Your task to perform on an android device: turn off location Image 0: 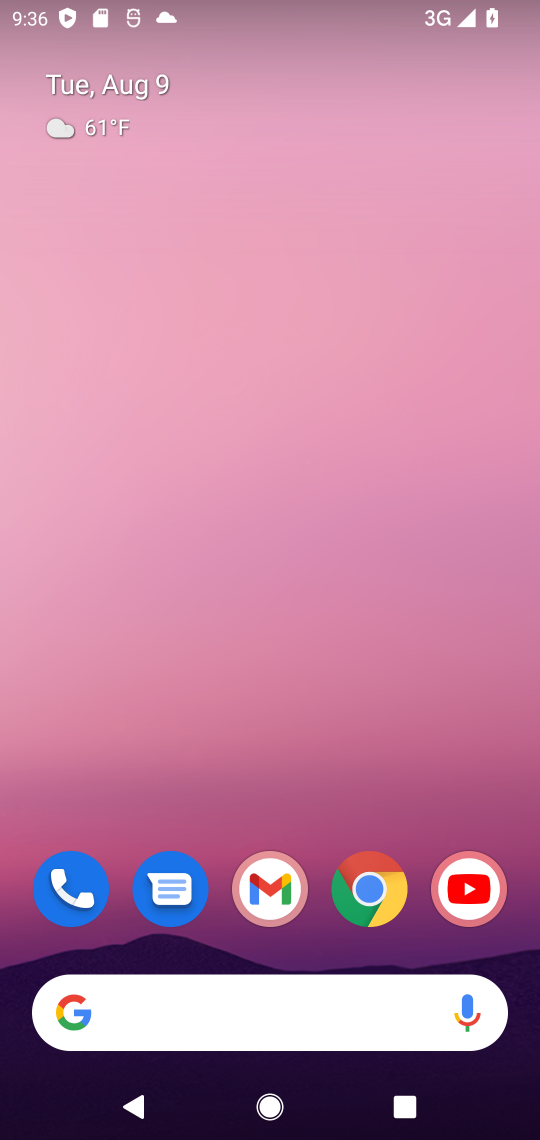
Step 0: drag from (320, 847) to (38, 225)
Your task to perform on an android device: turn off location Image 1: 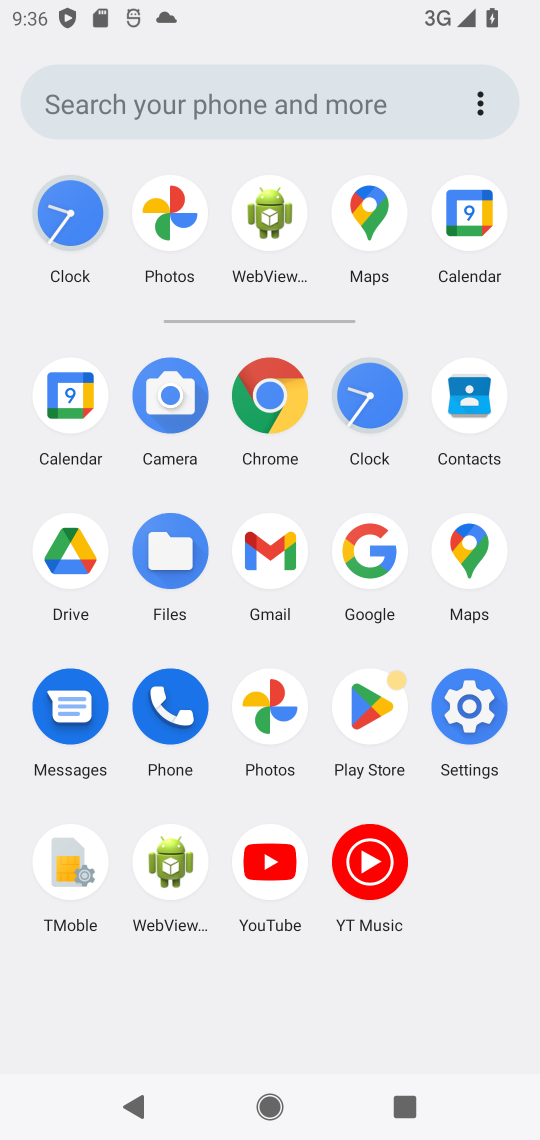
Step 1: click (475, 716)
Your task to perform on an android device: turn off location Image 2: 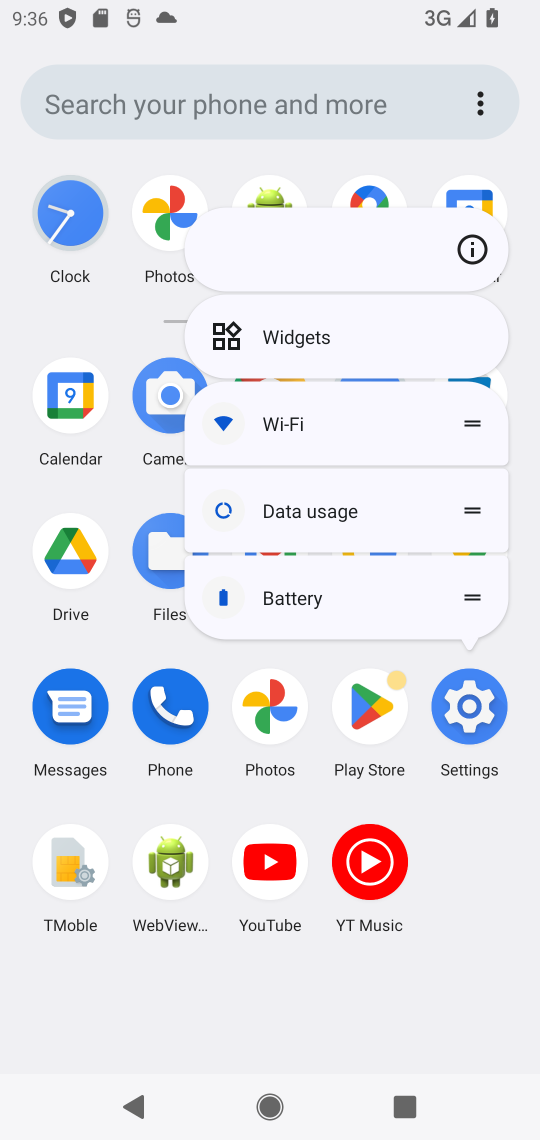
Step 2: click (490, 720)
Your task to perform on an android device: turn off location Image 3: 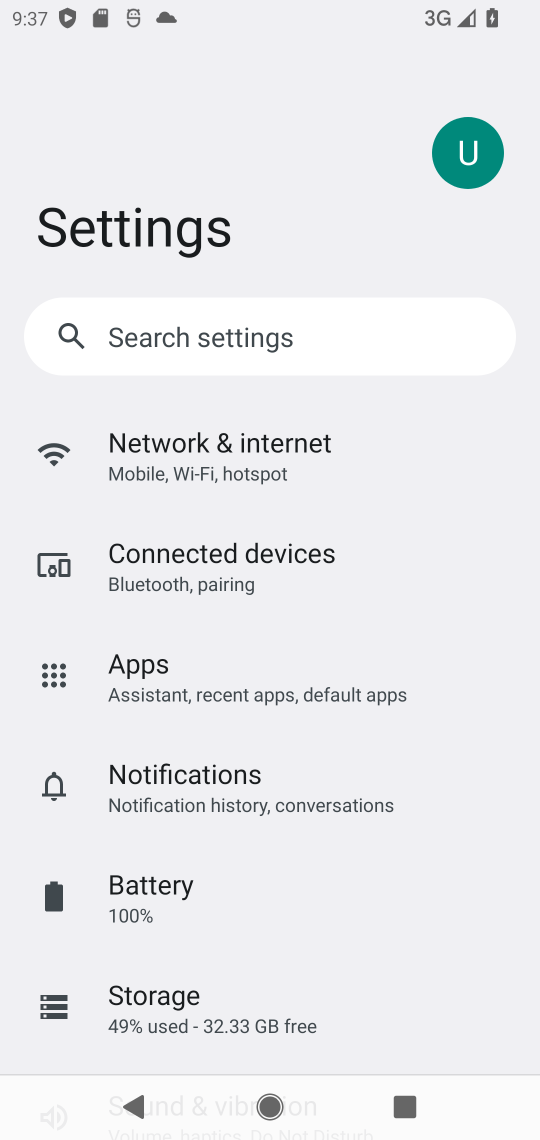
Step 3: drag from (247, 977) to (220, 333)
Your task to perform on an android device: turn off location Image 4: 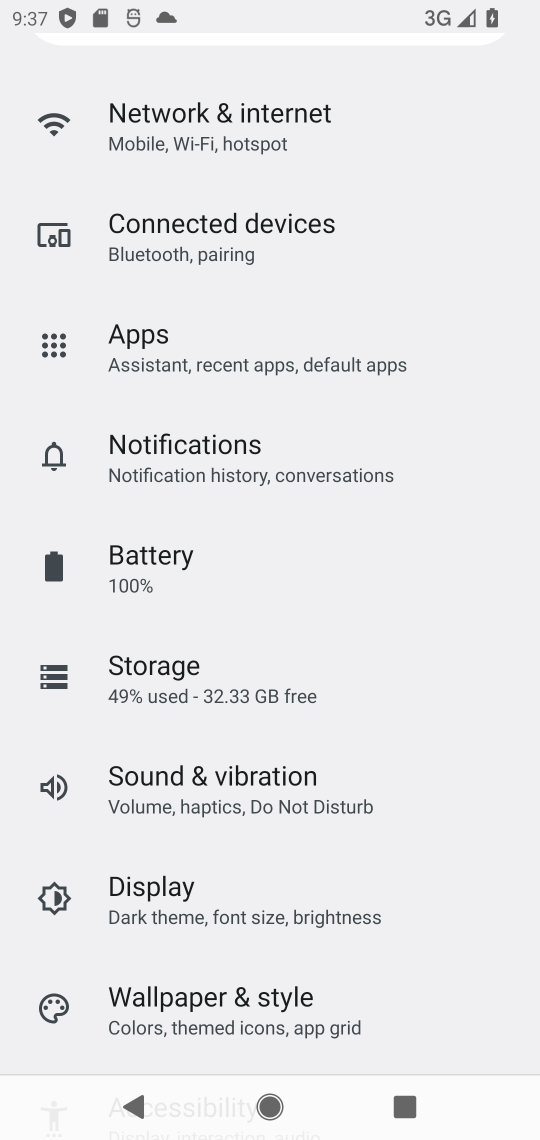
Step 4: drag from (191, 913) to (273, 327)
Your task to perform on an android device: turn off location Image 5: 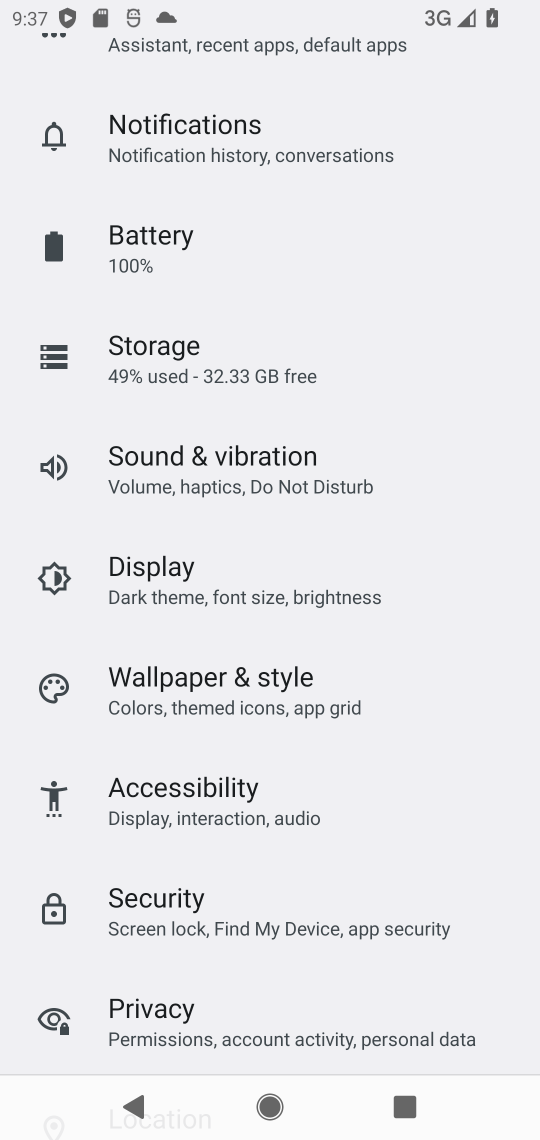
Step 5: drag from (194, 1031) to (291, 264)
Your task to perform on an android device: turn off location Image 6: 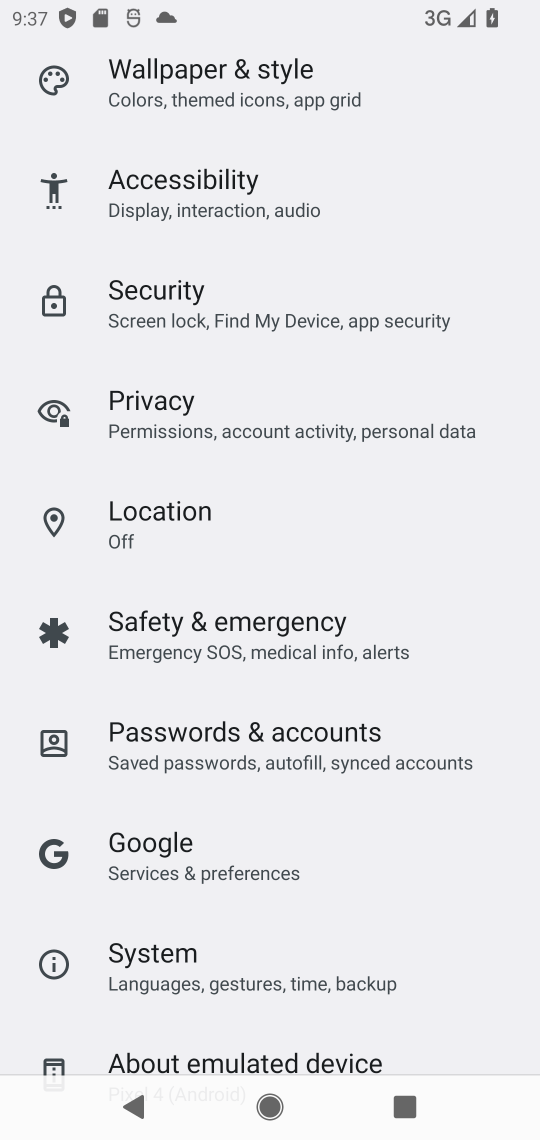
Step 6: drag from (291, 259) to (198, 884)
Your task to perform on an android device: turn off location Image 7: 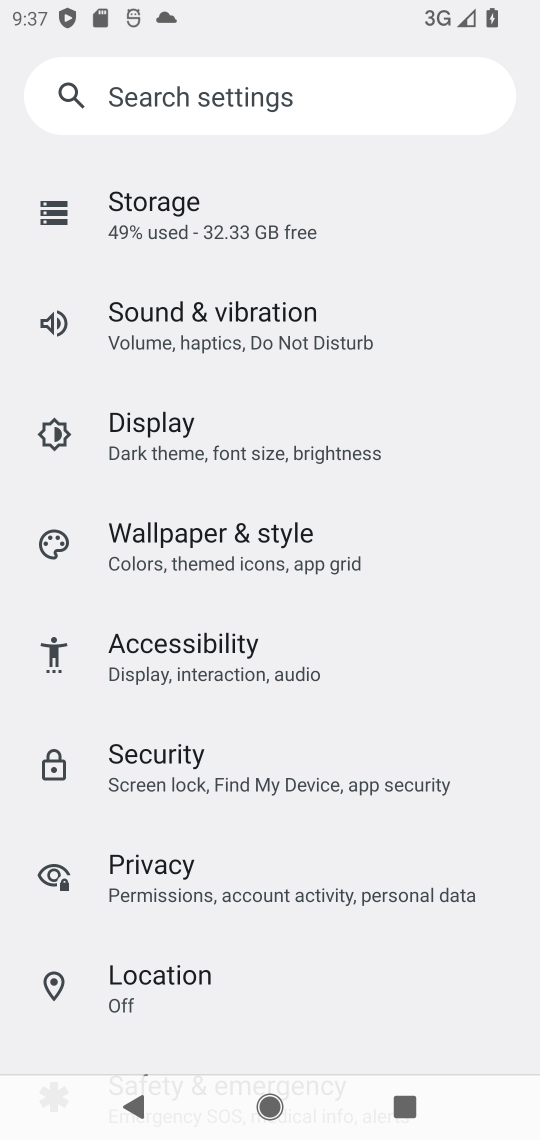
Step 7: drag from (206, 939) to (206, 363)
Your task to perform on an android device: turn off location Image 8: 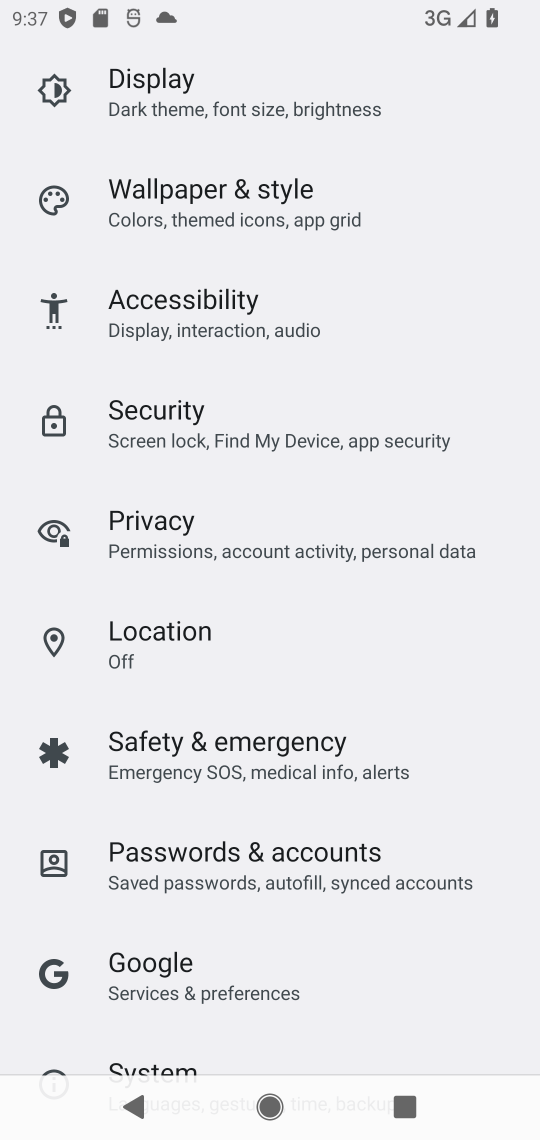
Step 8: click (150, 634)
Your task to perform on an android device: turn off location Image 9: 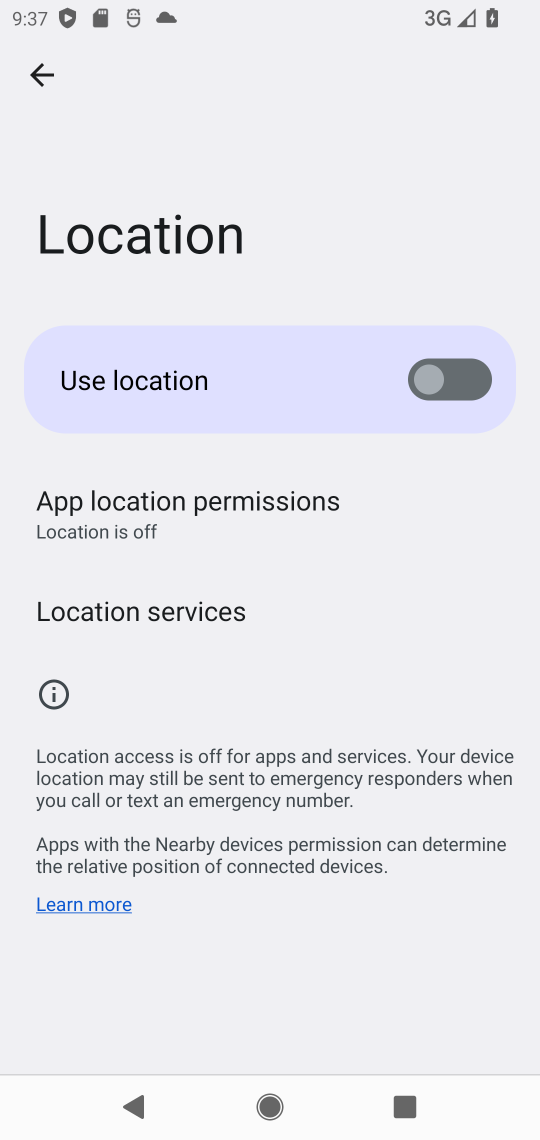
Step 9: task complete